Your task to perform on an android device: turn on location history Image 0: 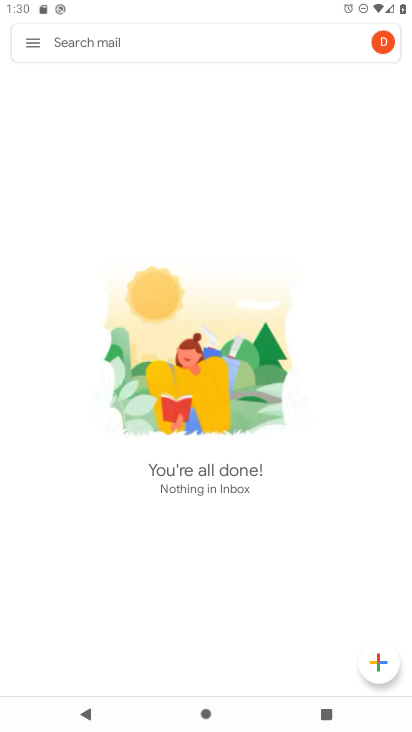
Step 0: press home button
Your task to perform on an android device: turn on location history Image 1: 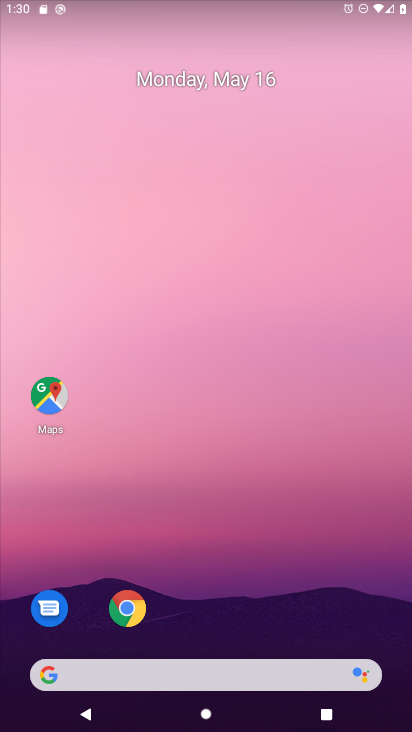
Step 1: drag from (250, 626) to (239, 119)
Your task to perform on an android device: turn on location history Image 2: 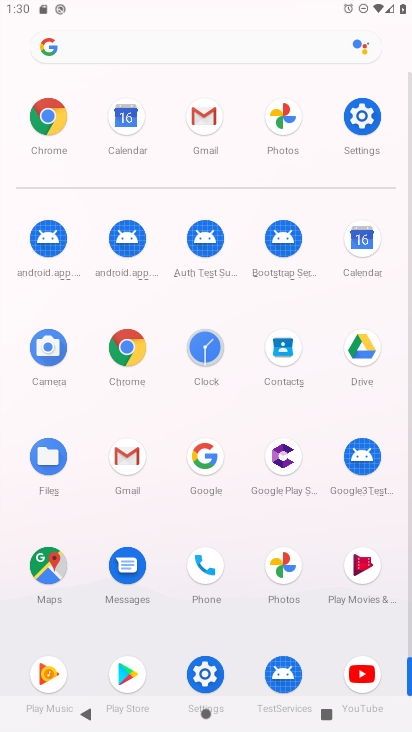
Step 2: click (368, 124)
Your task to perform on an android device: turn on location history Image 3: 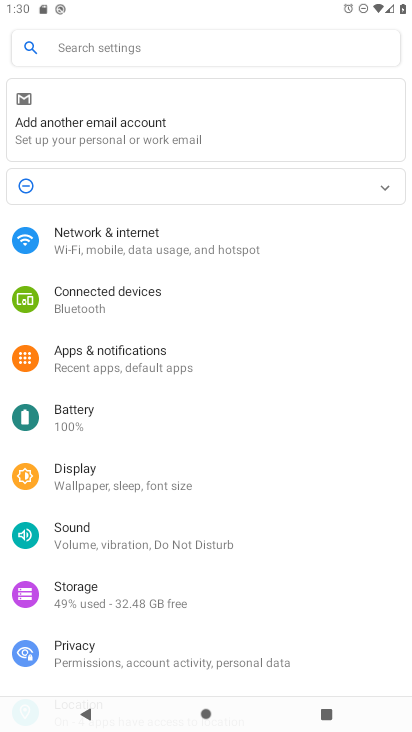
Step 3: drag from (135, 615) to (157, 330)
Your task to perform on an android device: turn on location history Image 4: 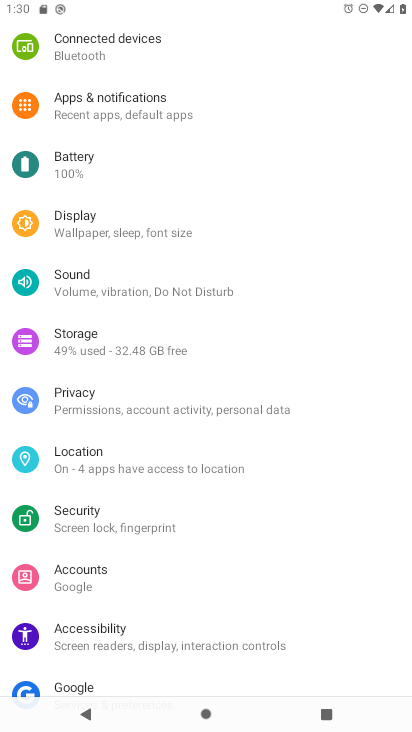
Step 4: click (155, 464)
Your task to perform on an android device: turn on location history Image 5: 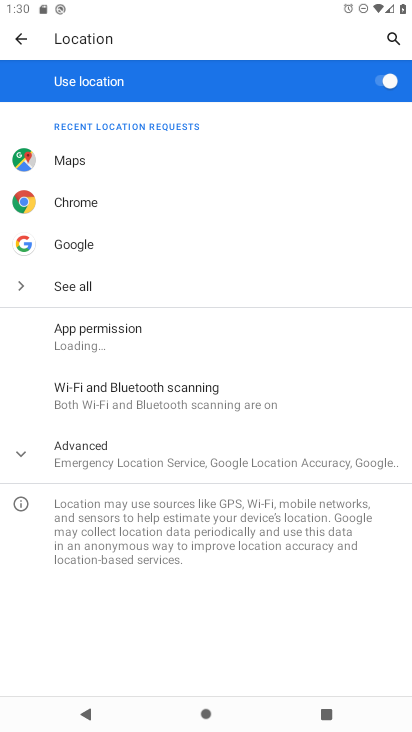
Step 5: click (22, 447)
Your task to perform on an android device: turn on location history Image 6: 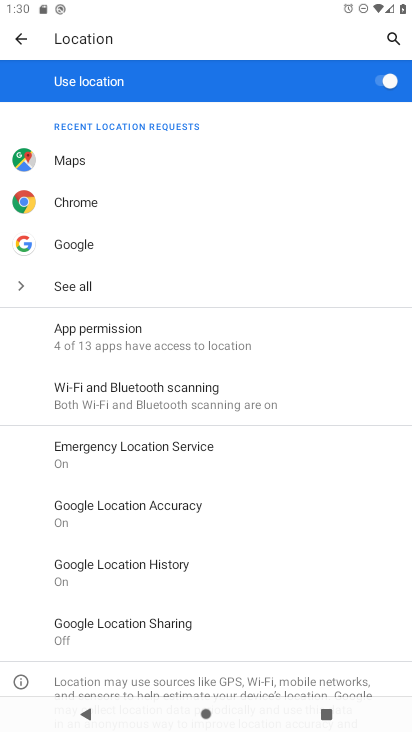
Step 6: click (189, 562)
Your task to perform on an android device: turn on location history Image 7: 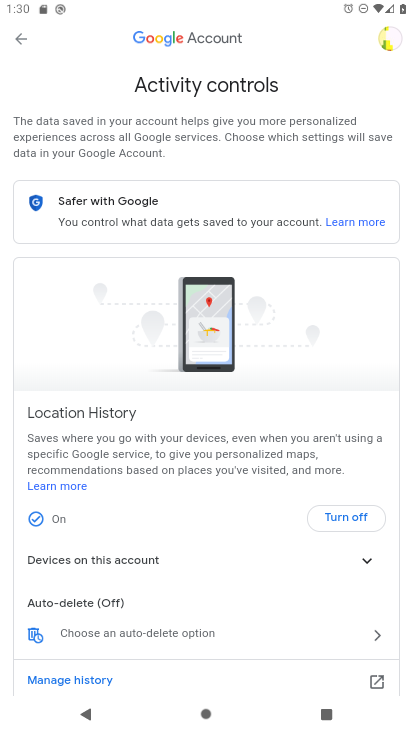
Step 7: task complete